Your task to perform on an android device: toggle location history Image 0: 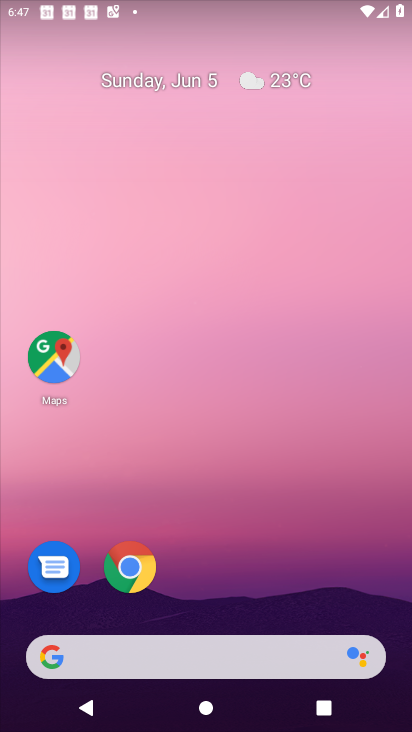
Step 0: drag from (383, 634) to (274, 52)
Your task to perform on an android device: toggle location history Image 1: 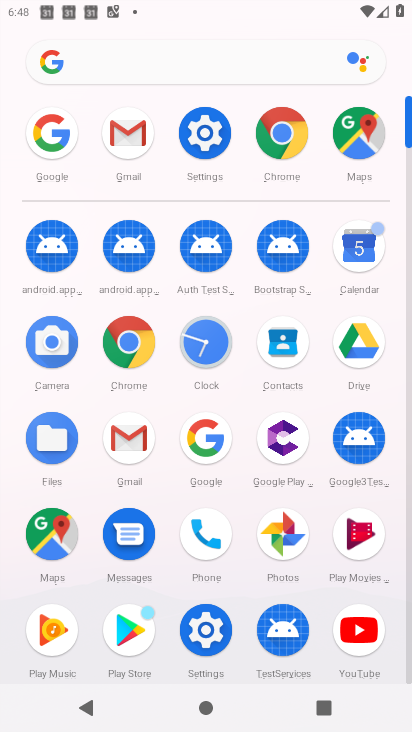
Step 1: click (199, 622)
Your task to perform on an android device: toggle location history Image 2: 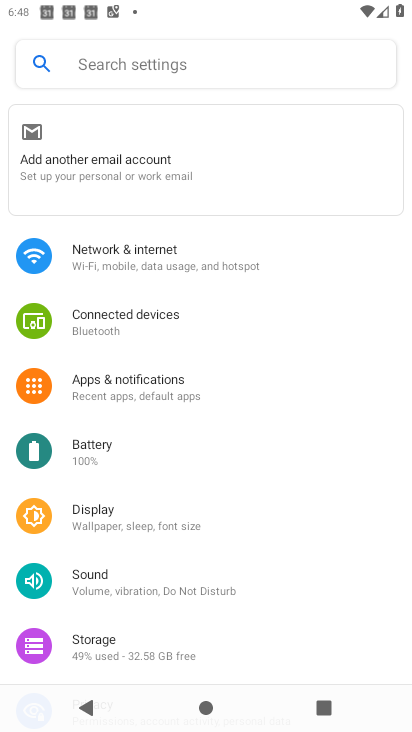
Step 2: drag from (156, 649) to (234, 252)
Your task to perform on an android device: toggle location history Image 3: 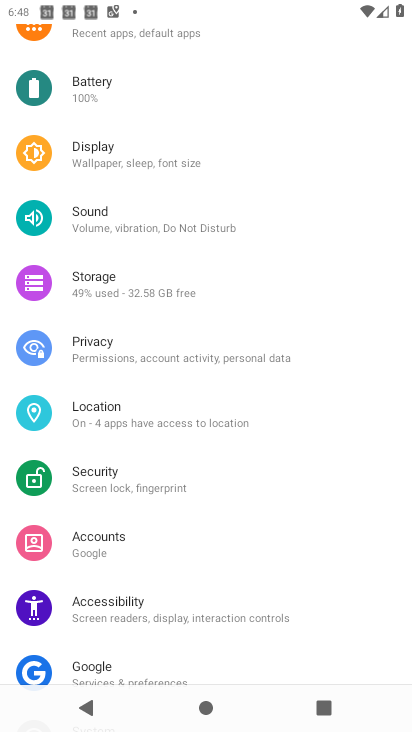
Step 3: click (120, 406)
Your task to perform on an android device: toggle location history Image 4: 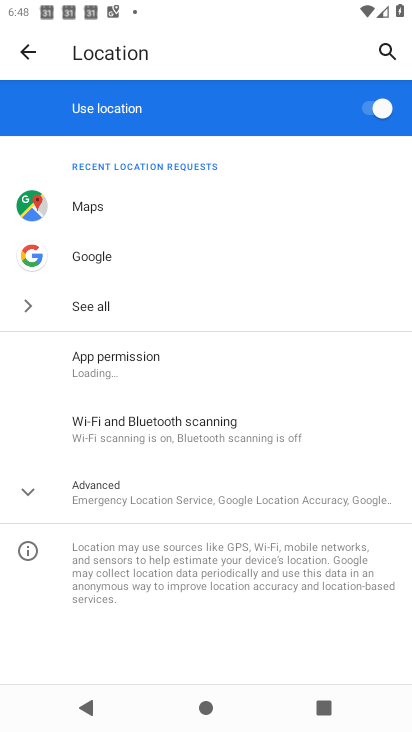
Step 4: click (125, 488)
Your task to perform on an android device: toggle location history Image 5: 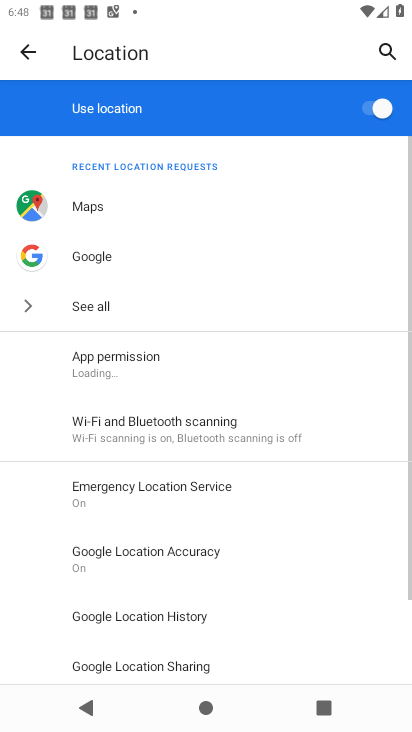
Step 5: click (178, 619)
Your task to perform on an android device: toggle location history Image 6: 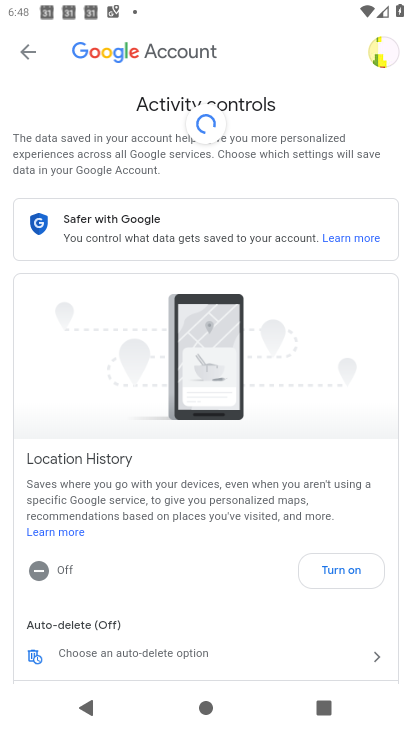
Step 6: drag from (193, 595) to (175, 177)
Your task to perform on an android device: toggle location history Image 7: 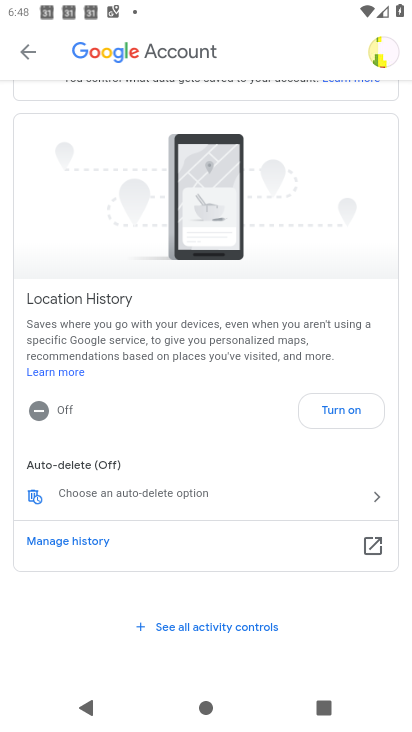
Step 7: click (354, 410)
Your task to perform on an android device: toggle location history Image 8: 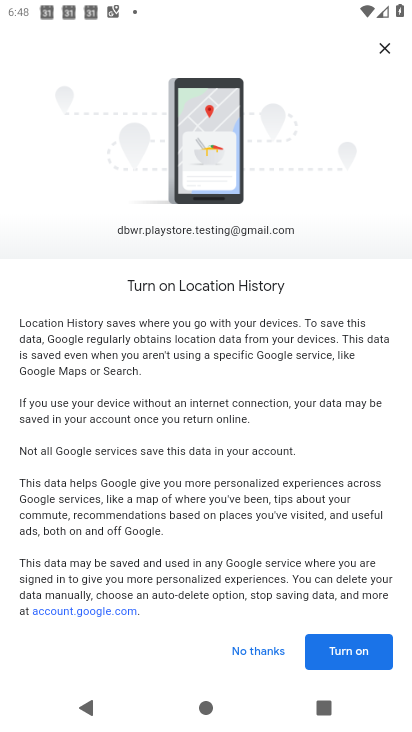
Step 8: task complete